Your task to perform on an android device: Open the phone app and click the voicemail tab. Image 0: 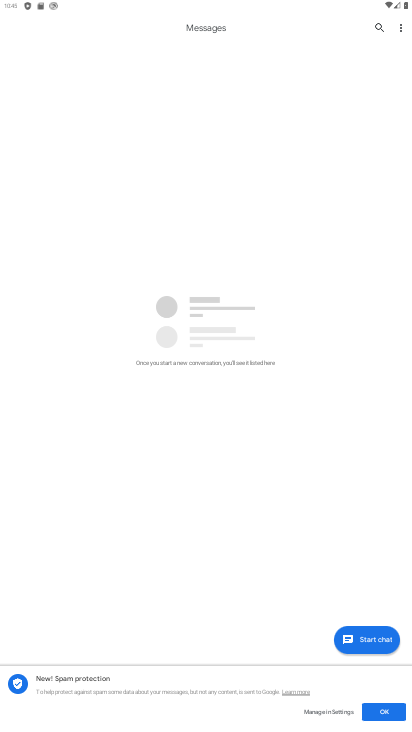
Step 0: press home button
Your task to perform on an android device: Open the phone app and click the voicemail tab. Image 1: 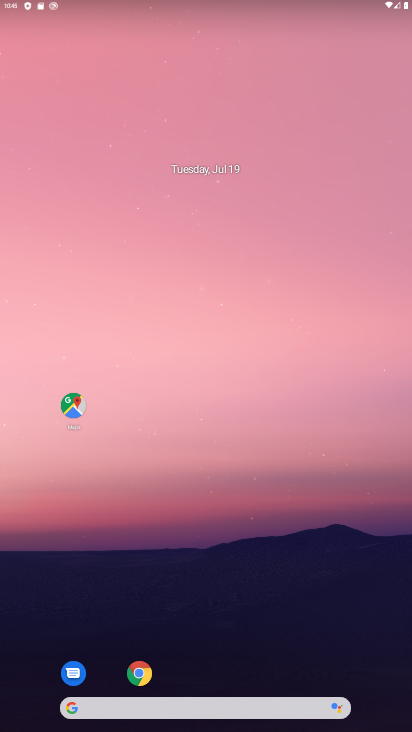
Step 1: drag from (204, 572) to (231, 99)
Your task to perform on an android device: Open the phone app and click the voicemail tab. Image 2: 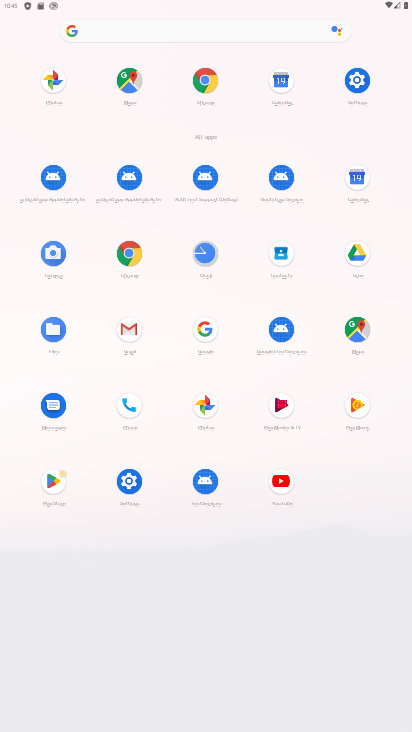
Step 2: click (132, 404)
Your task to perform on an android device: Open the phone app and click the voicemail tab. Image 3: 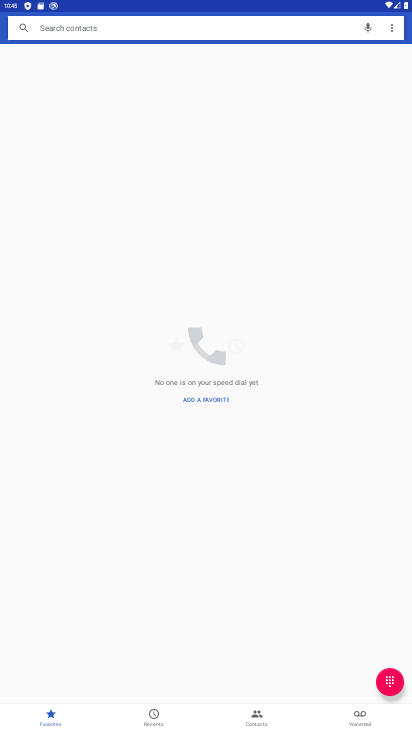
Step 3: click (360, 716)
Your task to perform on an android device: Open the phone app and click the voicemail tab. Image 4: 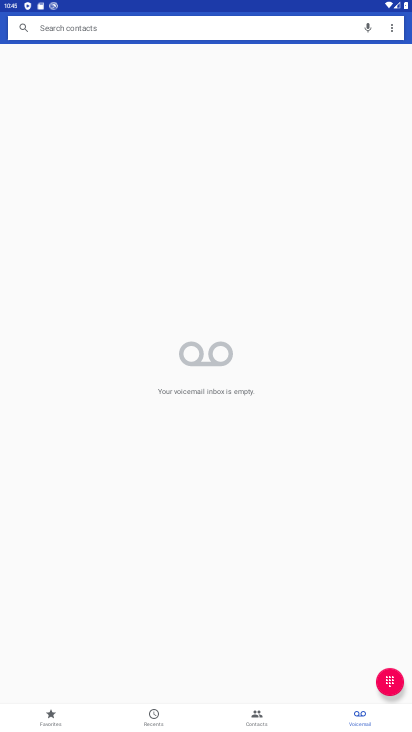
Step 4: task complete